Your task to perform on an android device: Go to calendar. Show me events next week Image 0: 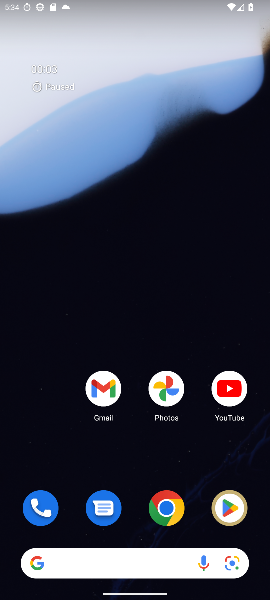
Step 0: press home button
Your task to perform on an android device: Go to calendar. Show me events next week Image 1: 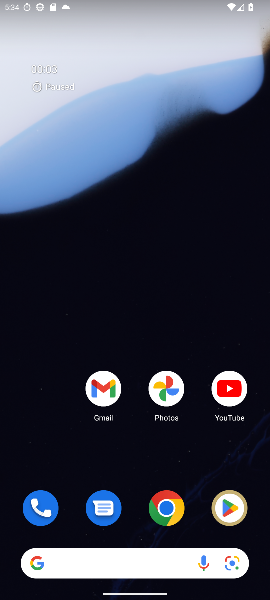
Step 1: drag from (50, 460) to (72, 88)
Your task to perform on an android device: Go to calendar. Show me events next week Image 2: 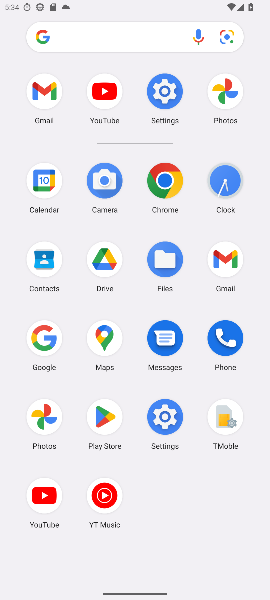
Step 2: click (53, 179)
Your task to perform on an android device: Go to calendar. Show me events next week Image 3: 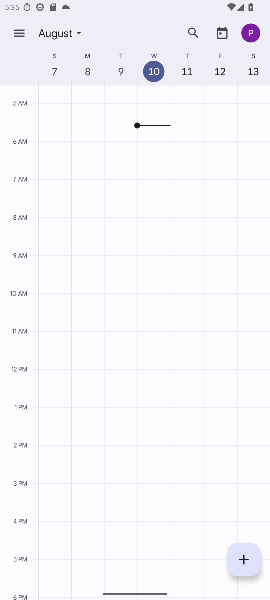
Step 3: task complete